Your task to perform on an android device: Open sound settings Image 0: 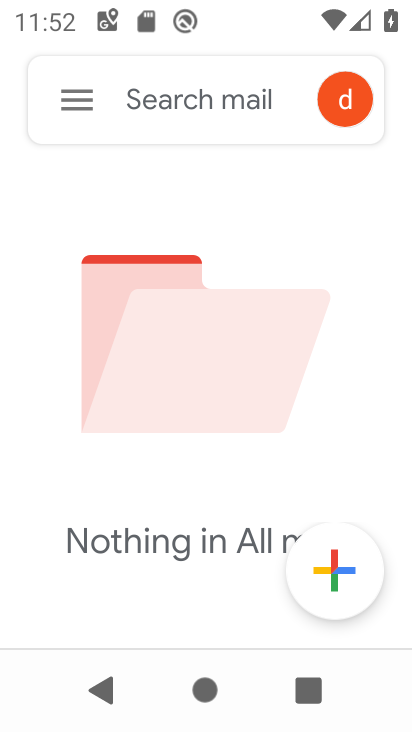
Step 0: press home button
Your task to perform on an android device: Open sound settings Image 1: 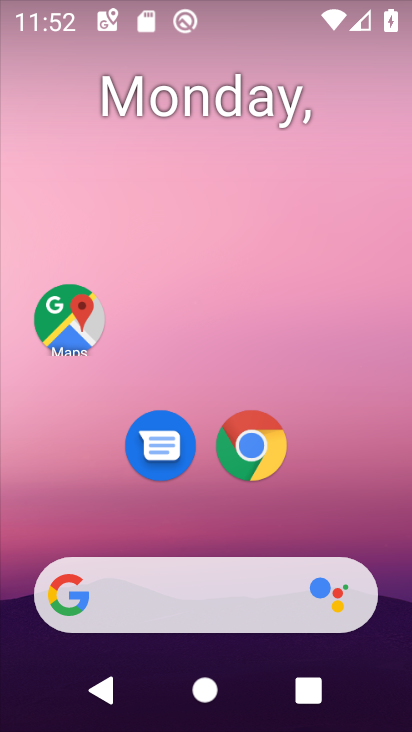
Step 1: drag from (295, 244) to (287, 0)
Your task to perform on an android device: Open sound settings Image 2: 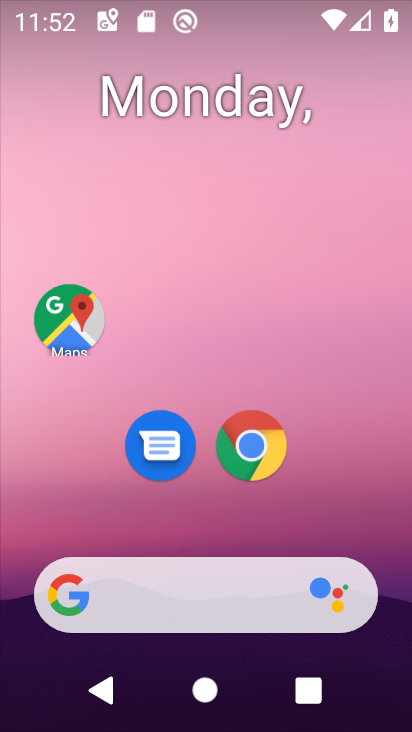
Step 2: drag from (337, 531) to (253, 7)
Your task to perform on an android device: Open sound settings Image 3: 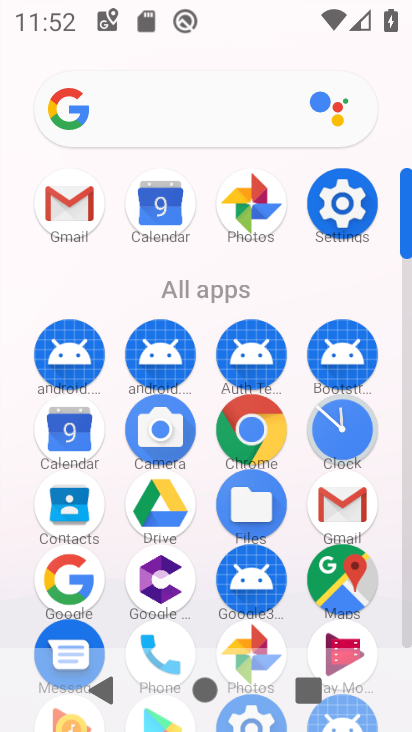
Step 3: click (342, 200)
Your task to perform on an android device: Open sound settings Image 4: 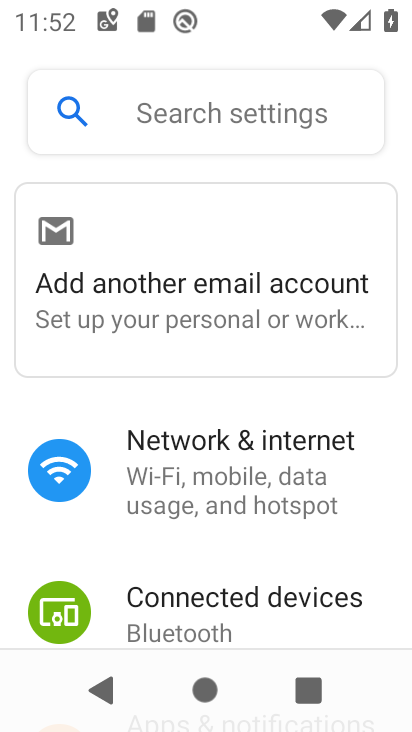
Step 4: drag from (204, 538) to (159, 148)
Your task to perform on an android device: Open sound settings Image 5: 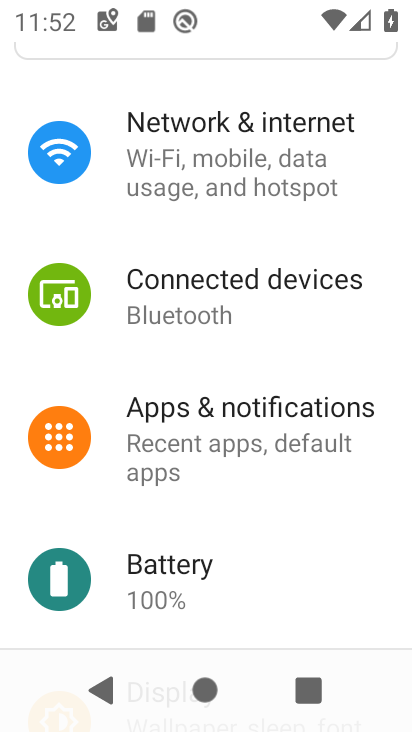
Step 5: drag from (232, 519) to (195, 69)
Your task to perform on an android device: Open sound settings Image 6: 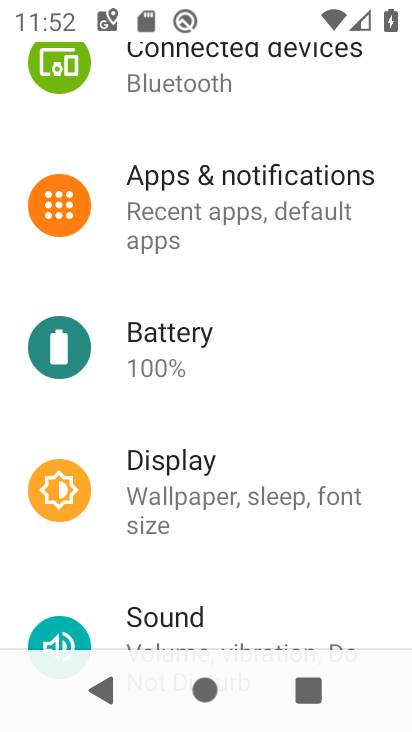
Step 6: drag from (179, 567) to (143, 230)
Your task to perform on an android device: Open sound settings Image 7: 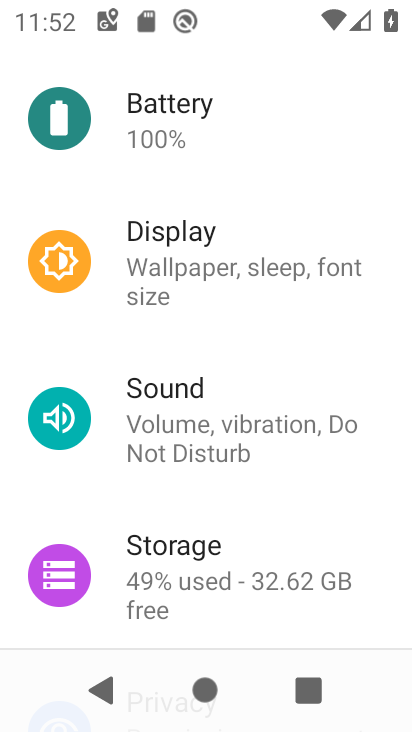
Step 7: click (167, 399)
Your task to perform on an android device: Open sound settings Image 8: 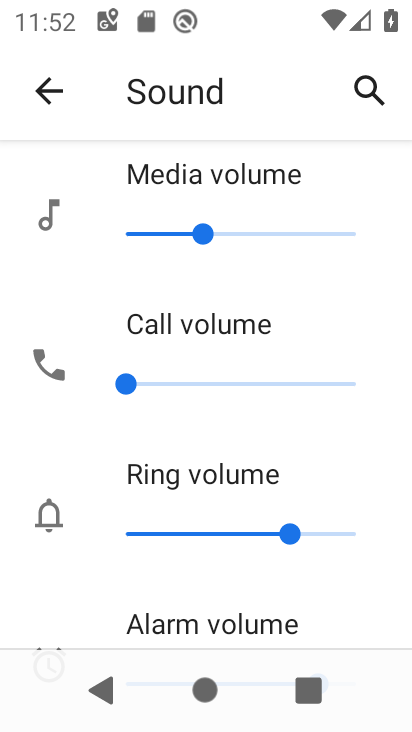
Step 8: task complete